Your task to perform on an android device: Show me the alarms in the clock app Image 0: 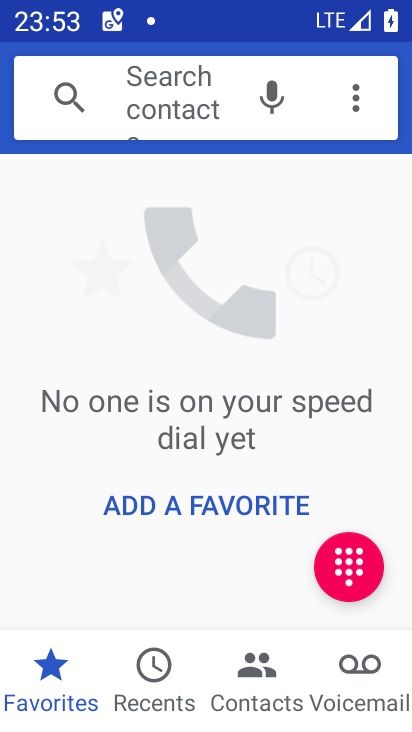
Step 0: press back button
Your task to perform on an android device: Show me the alarms in the clock app Image 1: 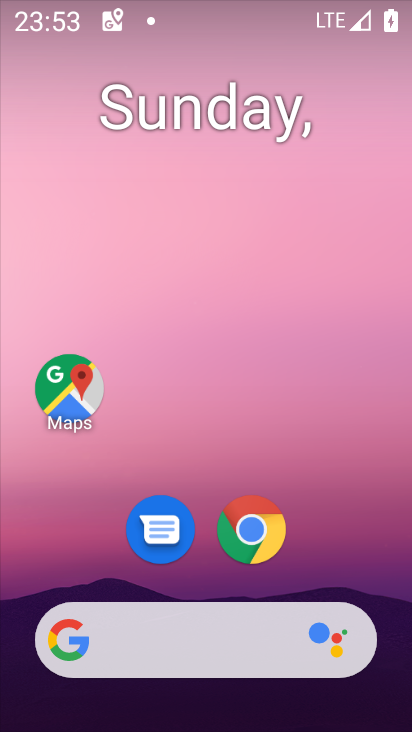
Step 1: drag from (361, 525) to (282, 23)
Your task to perform on an android device: Show me the alarms in the clock app Image 2: 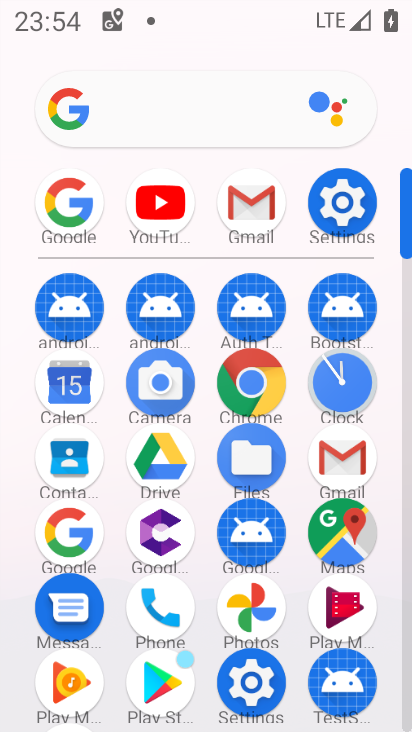
Step 2: drag from (207, 582) to (205, 318)
Your task to perform on an android device: Show me the alarms in the clock app Image 3: 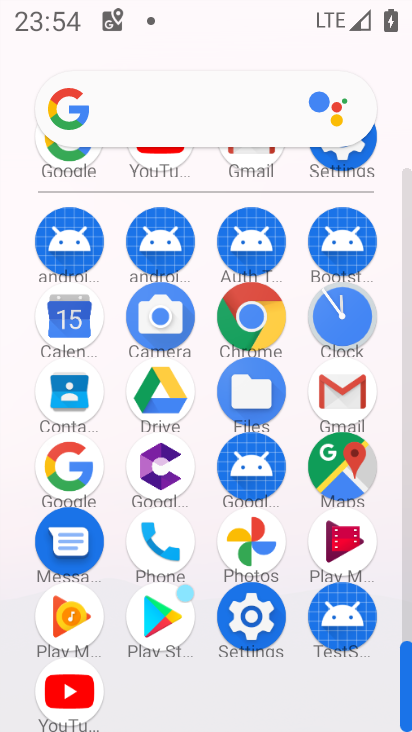
Step 3: click (342, 316)
Your task to perform on an android device: Show me the alarms in the clock app Image 4: 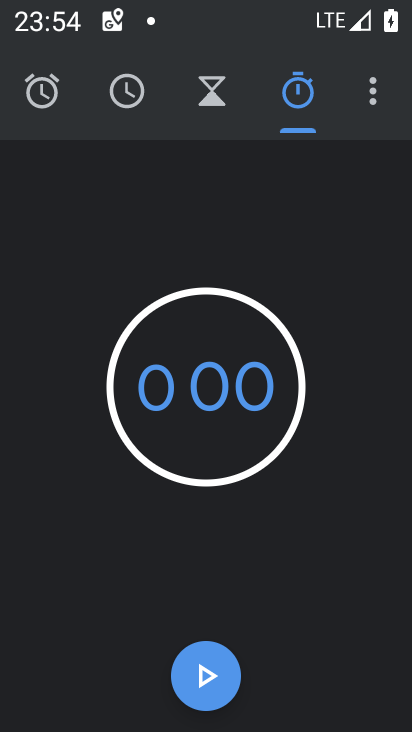
Step 4: click (45, 99)
Your task to perform on an android device: Show me the alarms in the clock app Image 5: 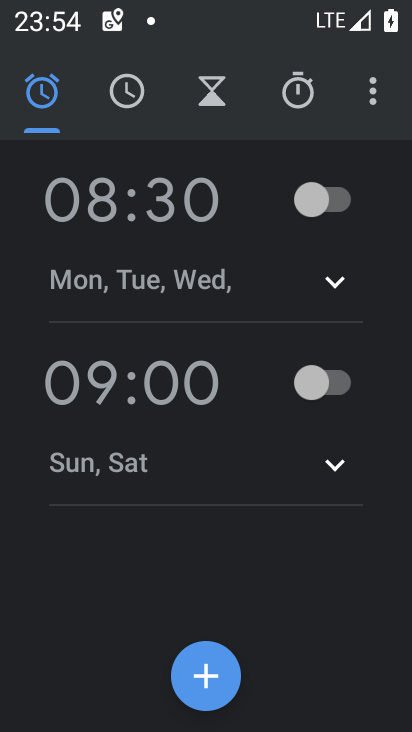
Step 5: task complete